Your task to perform on an android device: Open network settings Image 0: 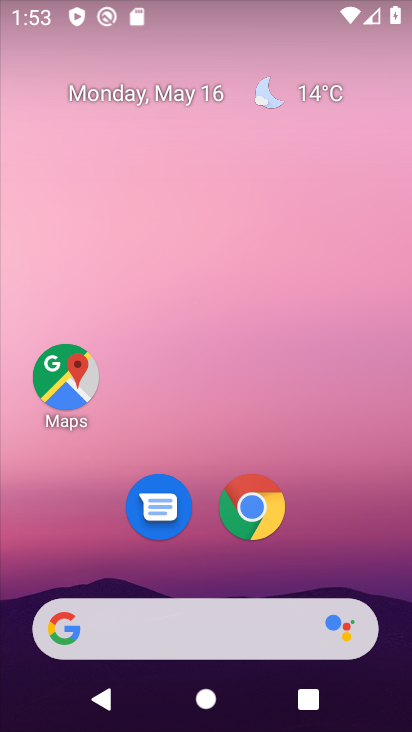
Step 0: drag from (264, 564) to (263, 289)
Your task to perform on an android device: Open network settings Image 1: 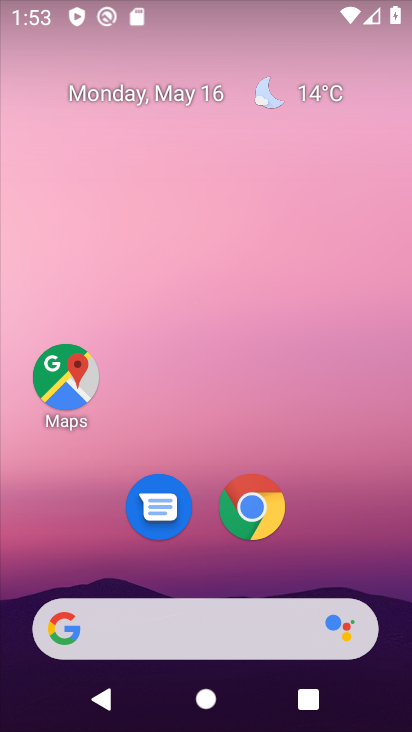
Step 1: drag from (280, 408) to (308, 154)
Your task to perform on an android device: Open network settings Image 2: 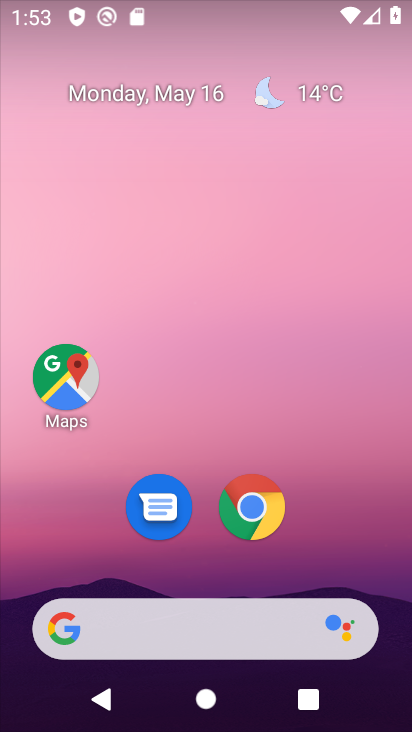
Step 2: drag from (200, 561) to (255, 141)
Your task to perform on an android device: Open network settings Image 3: 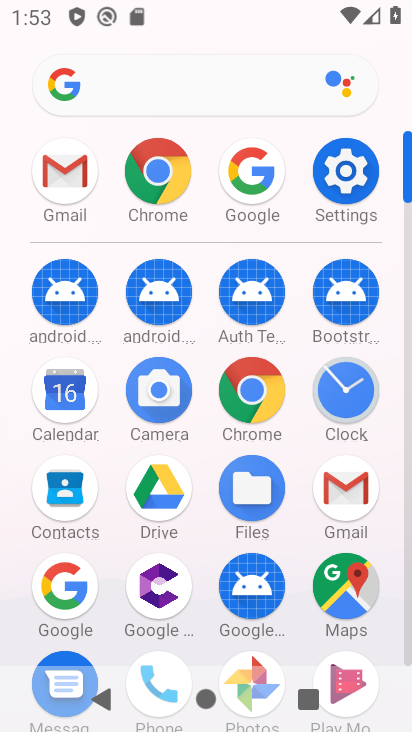
Step 3: click (332, 186)
Your task to perform on an android device: Open network settings Image 4: 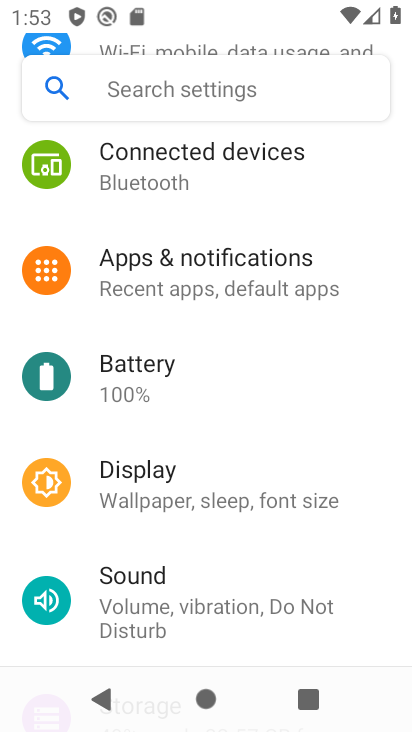
Step 4: drag from (225, 241) to (241, 679)
Your task to perform on an android device: Open network settings Image 5: 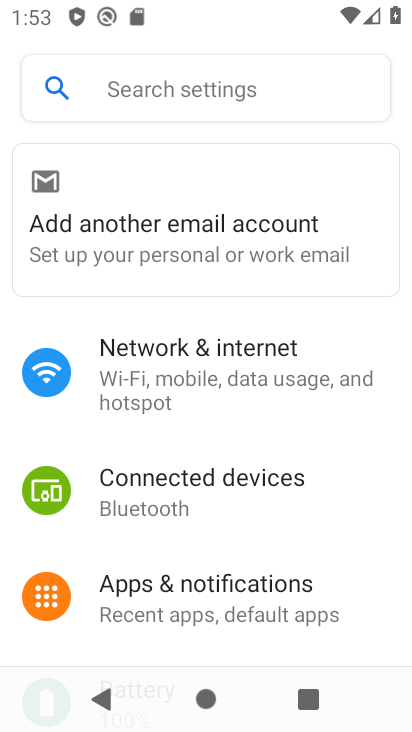
Step 5: click (232, 410)
Your task to perform on an android device: Open network settings Image 6: 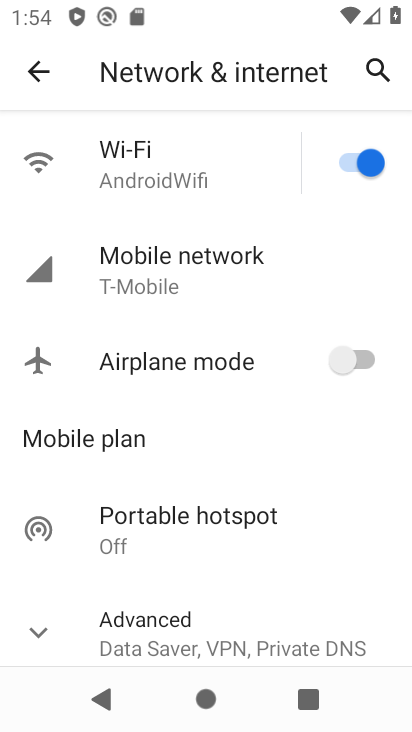
Step 6: drag from (235, 576) to (253, 282)
Your task to perform on an android device: Open network settings Image 7: 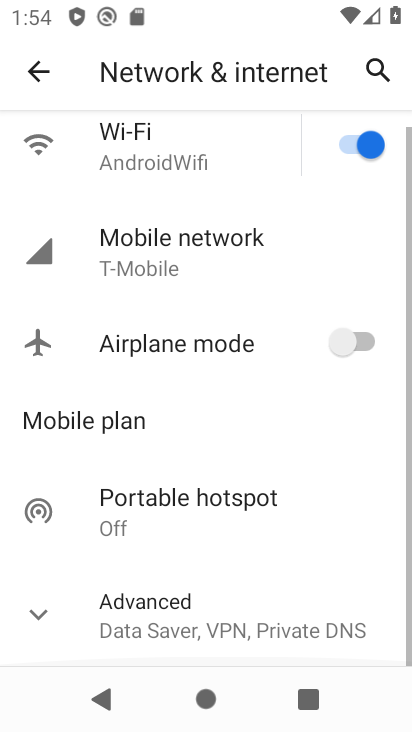
Step 7: click (262, 230)
Your task to perform on an android device: Open network settings Image 8: 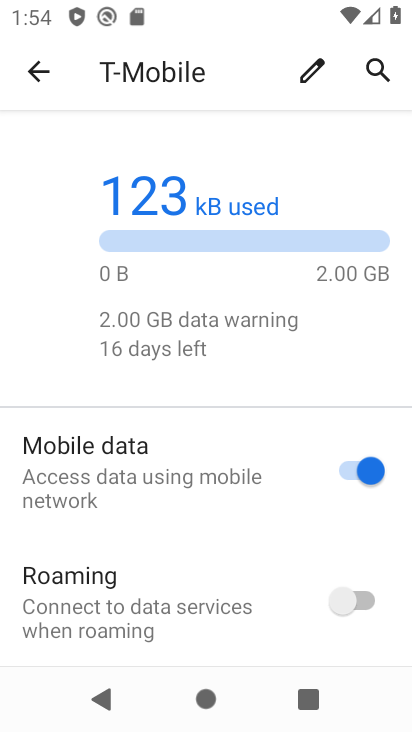
Step 8: task complete